Your task to perform on an android device: turn off smart reply in the gmail app Image 0: 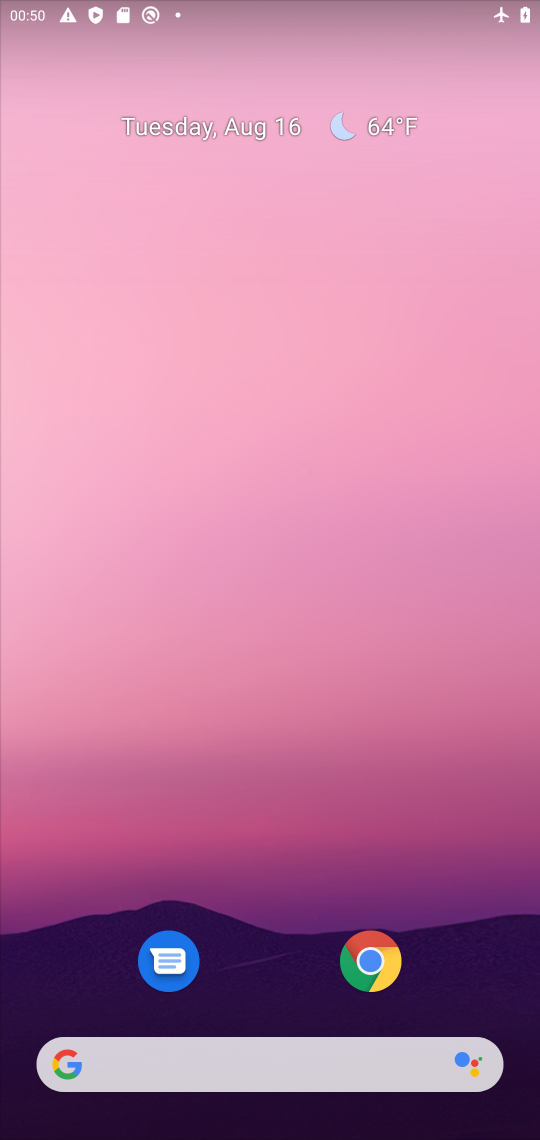
Step 0: press home button
Your task to perform on an android device: turn off smart reply in the gmail app Image 1: 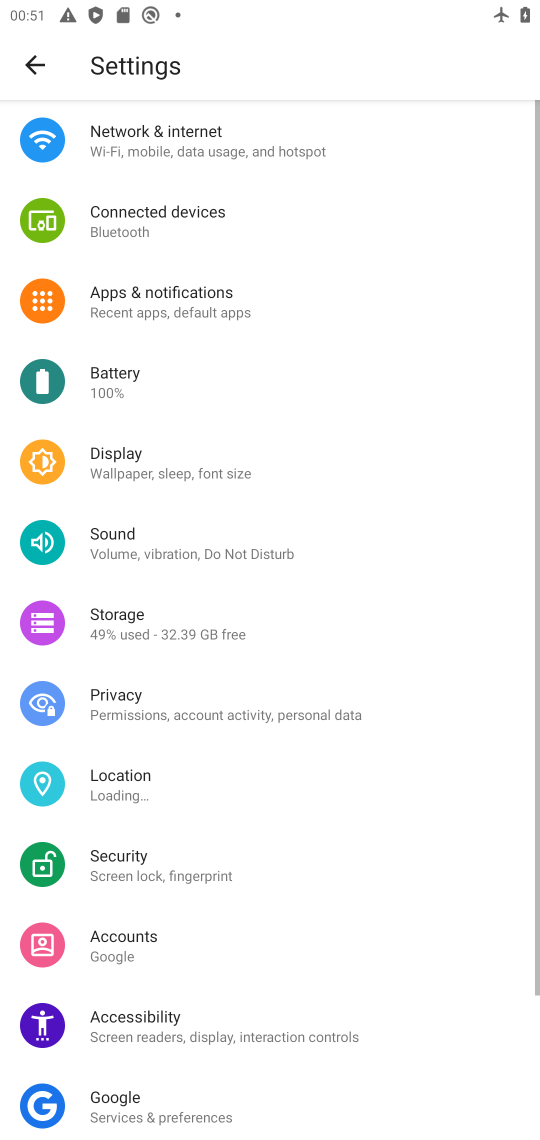
Step 1: press home button
Your task to perform on an android device: turn off smart reply in the gmail app Image 2: 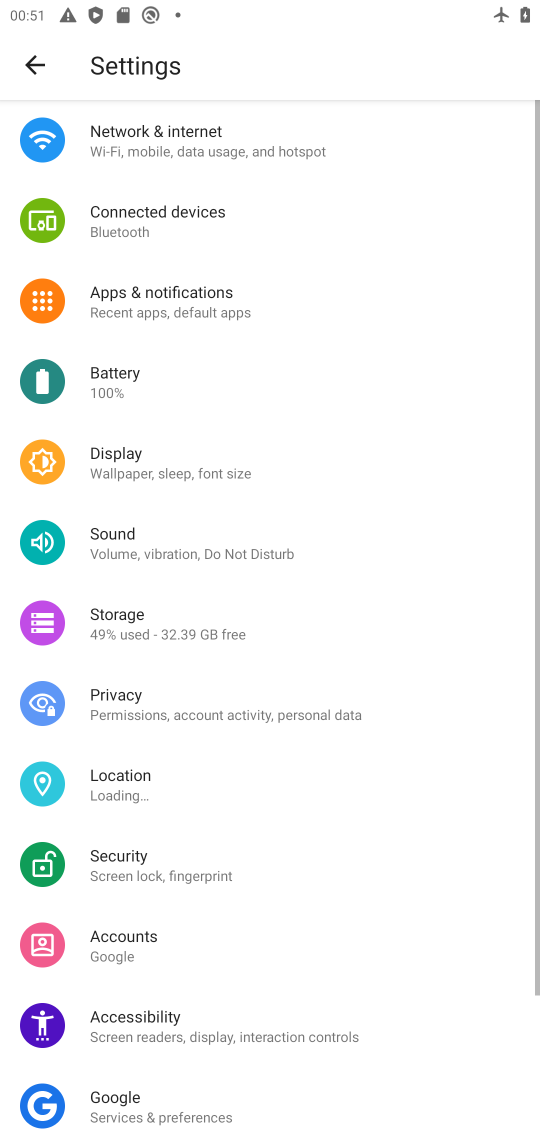
Step 2: click (293, 10)
Your task to perform on an android device: turn off smart reply in the gmail app Image 3: 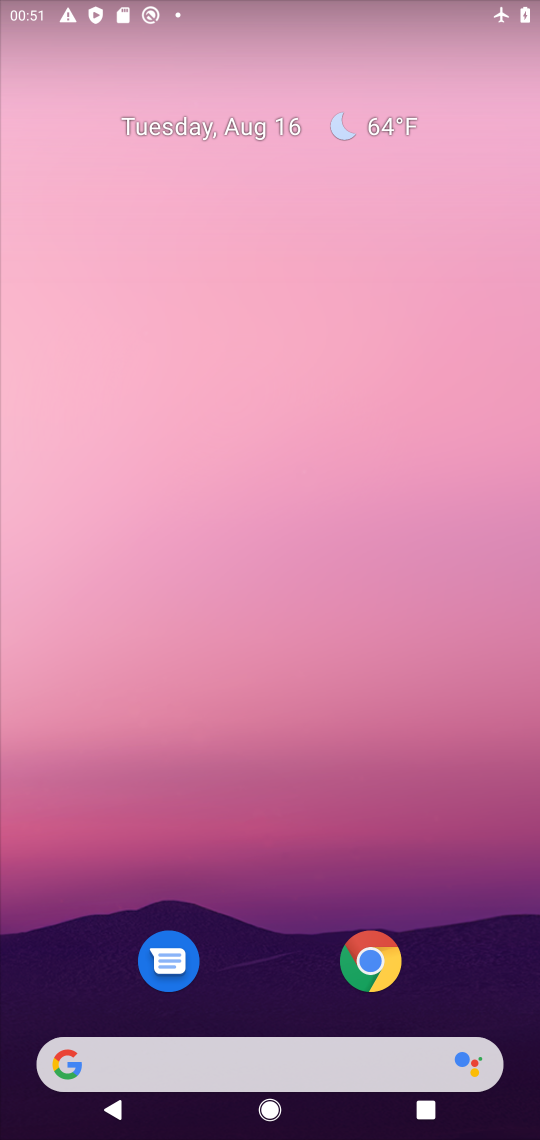
Step 3: press home button
Your task to perform on an android device: turn off smart reply in the gmail app Image 4: 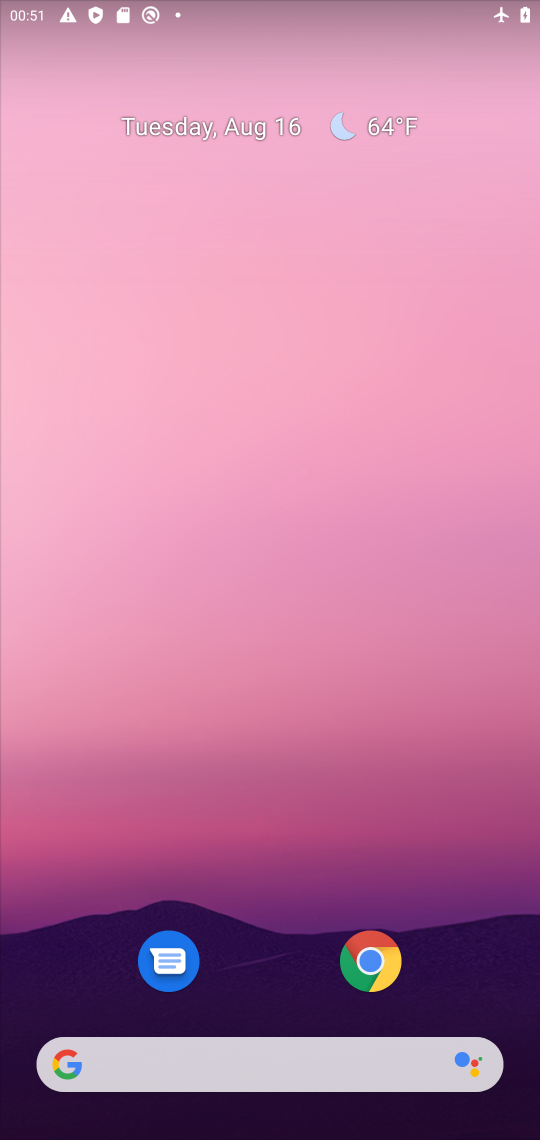
Step 4: press home button
Your task to perform on an android device: turn off smart reply in the gmail app Image 5: 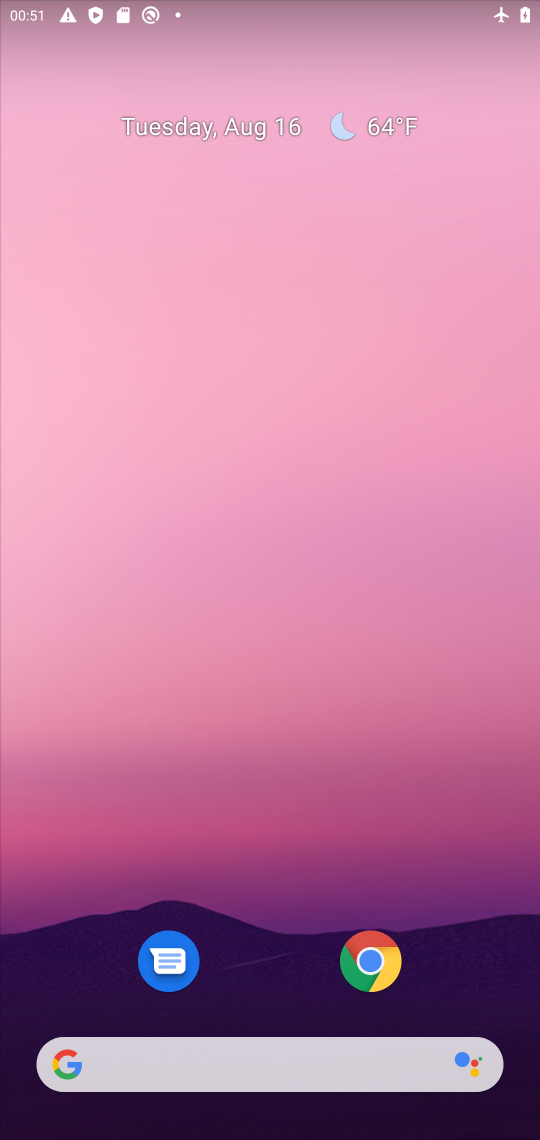
Step 5: drag from (234, 1062) to (221, 5)
Your task to perform on an android device: turn off smart reply in the gmail app Image 6: 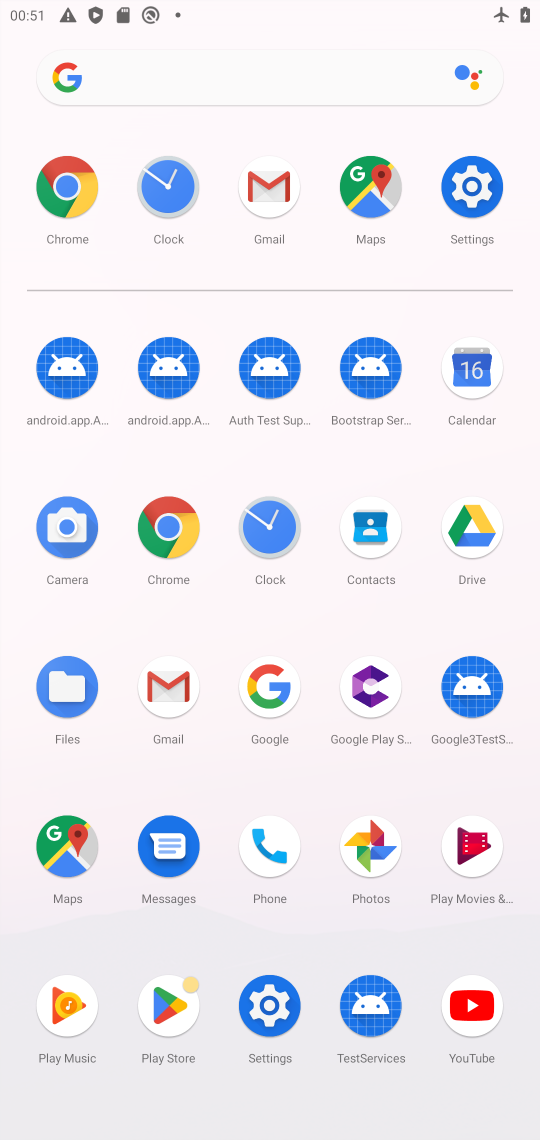
Step 6: click (270, 194)
Your task to perform on an android device: turn off smart reply in the gmail app Image 7: 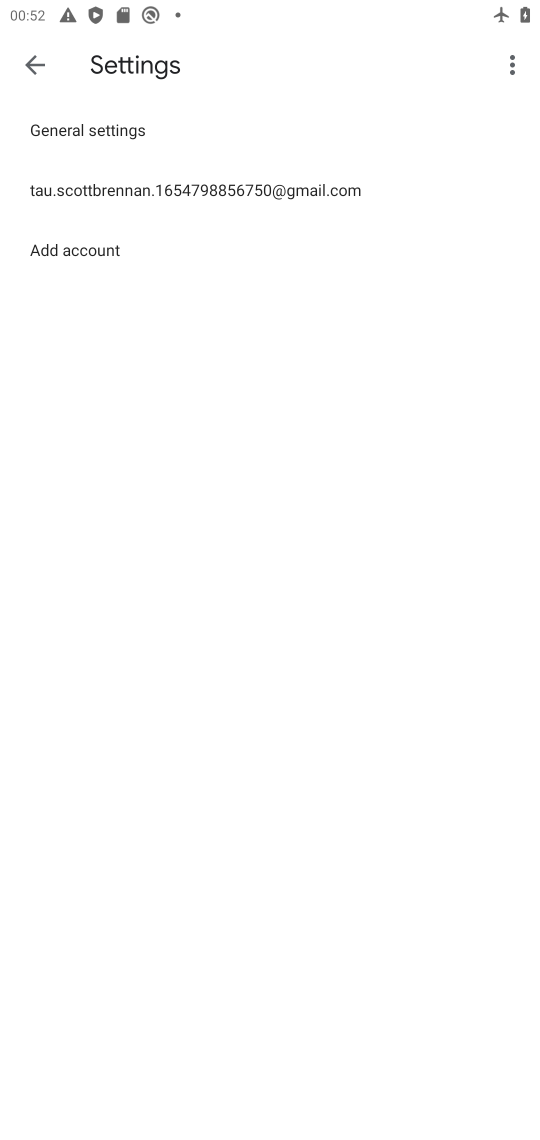
Step 7: click (286, 189)
Your task to perform on an android device: turn off smart reply in the gmail app Image 8: 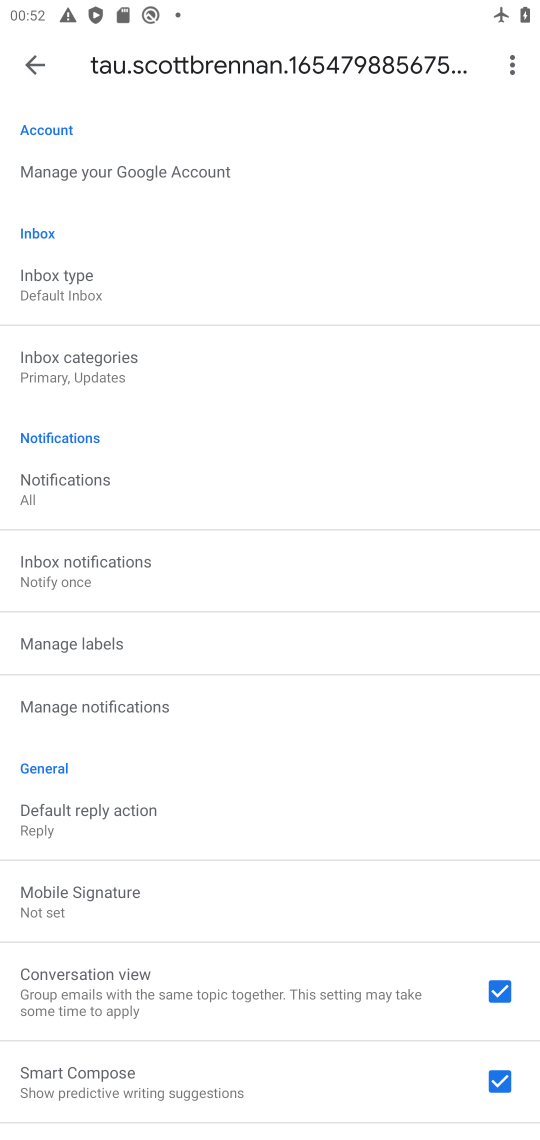
Step 8: drag from (131, 1004) to (119, 132)
Your task to perform on an android device: turn off smart reply in the gmail app Image 9: 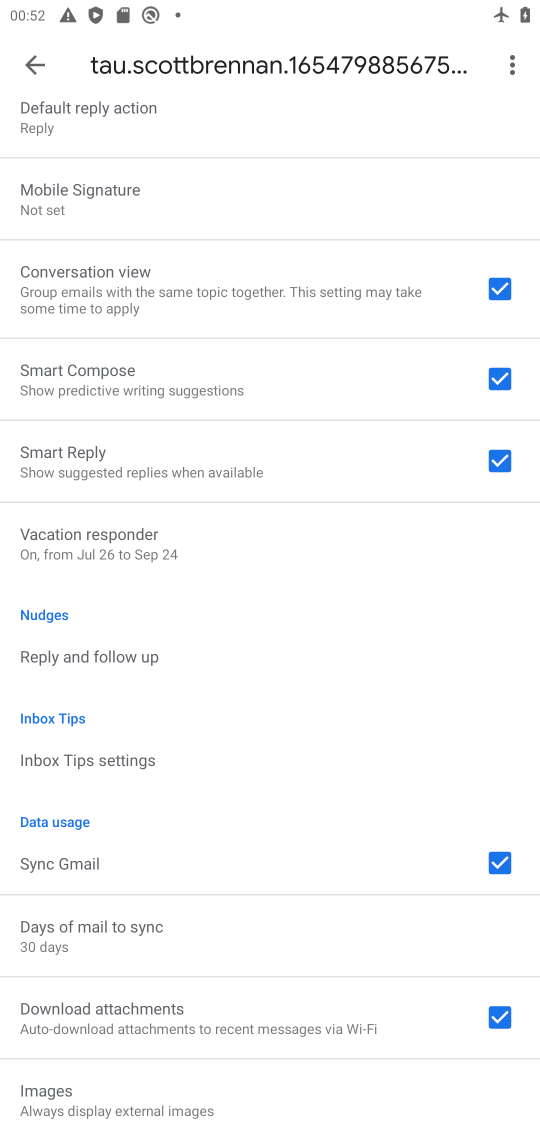
Step 9: click (95, 459)
Your task to perform on an android device: turn off smart reply in the gmail app Image 10: 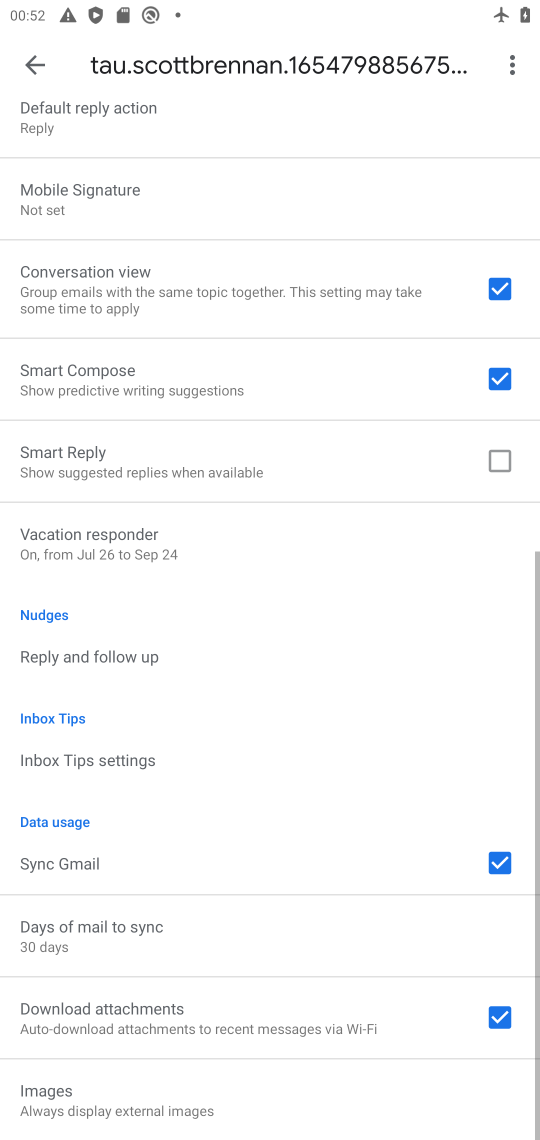
Step 10: task complete